Your task to perform on an android device: turn on the 24-hour format for clock Image 0: 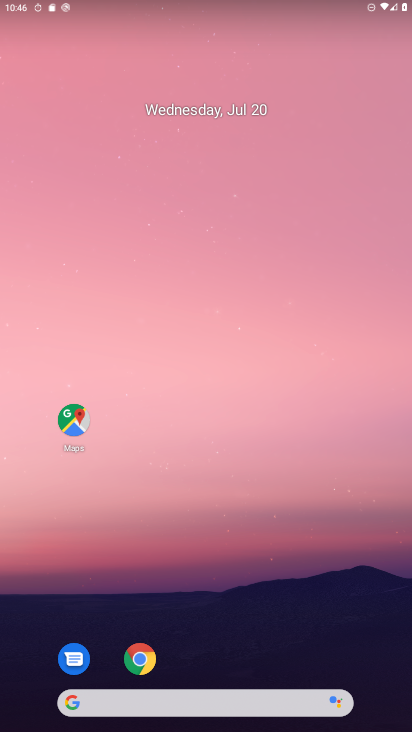
Step 0: drag from (288, 643) to (189, 46)
Your task to perform on an android device: turn on the 24-hour format for clock Image 1: 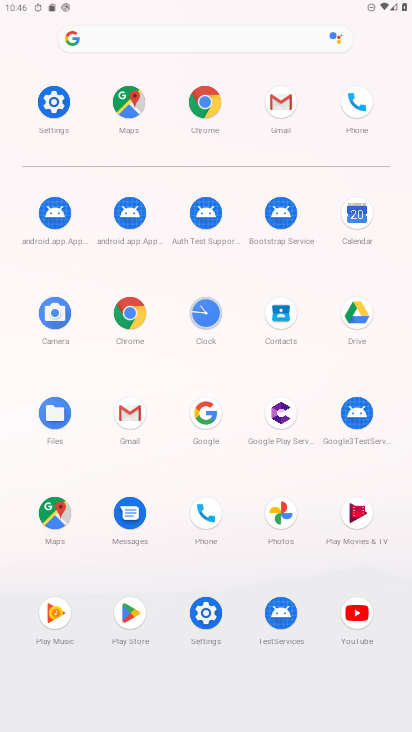
Step 1: click (209, 311)
Your task to perform on an android device: turn on the 24-hour format for clock Image 2: 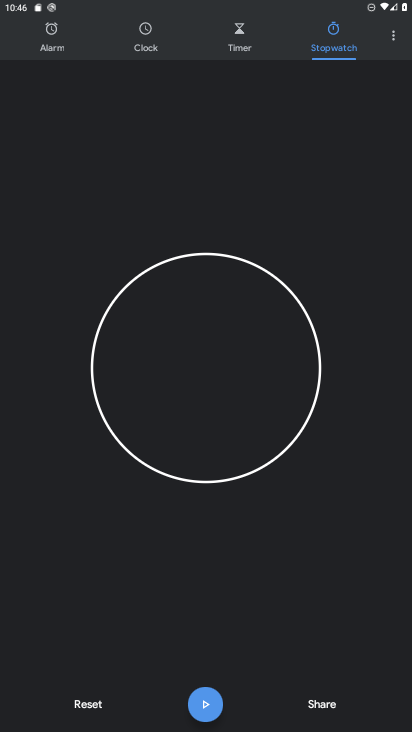
Step 2: click (398, 31)
Your task to perform on an android device: turn on the 24-hour format for clock Image 3: 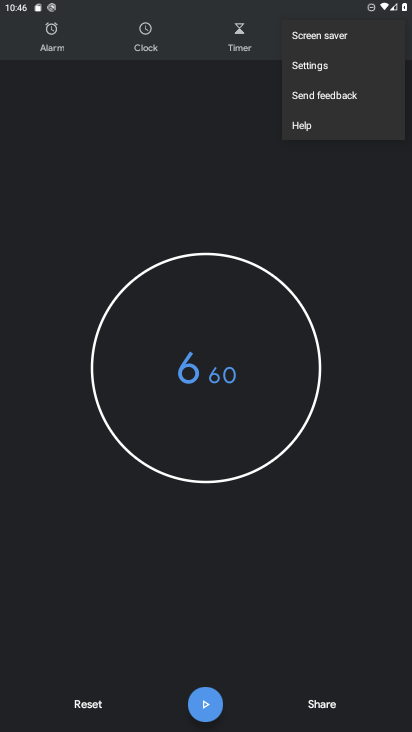
Step 3: click (315, 68)
Your task to perform on an android device: turn on the 24-hour format for clock Image 4: 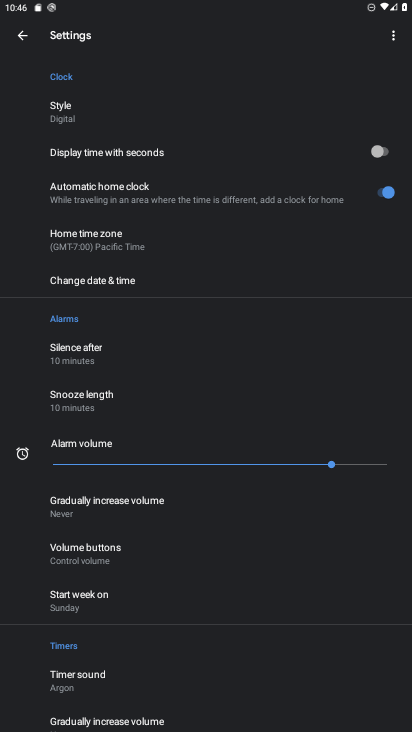
Step 4: click (127, 283)
Your task to perform on an android device: turn on the 24-hour format for clock Image 5: 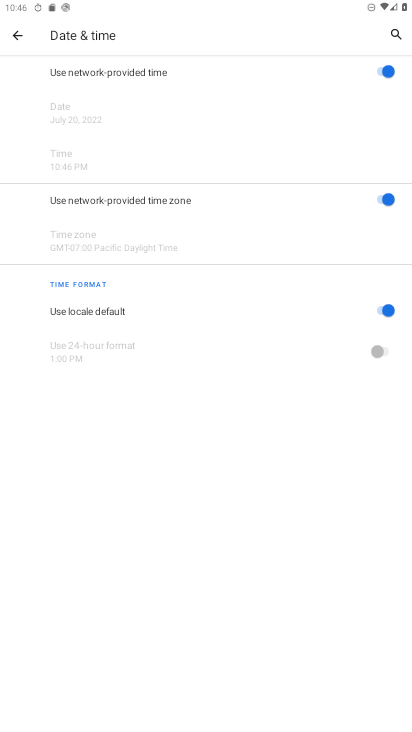
Step 5: click (379, 308)
Your task to perform on an android device: turn on the 24-hour format for clock Image 6: 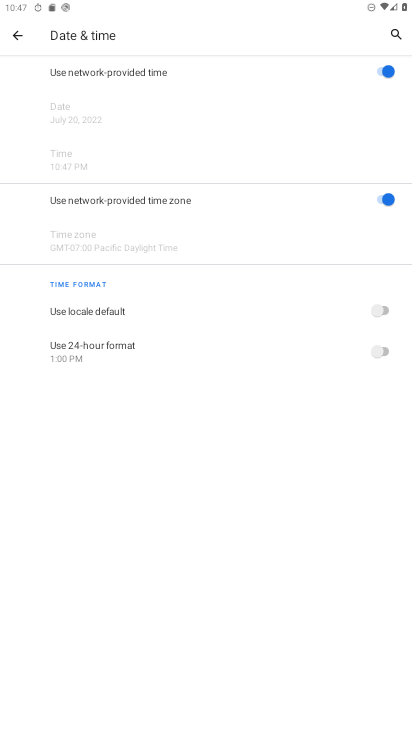
Step 6: click (375, 358)
Your task to perform on an android device: turn on the 24-hour format for clock Image 7: 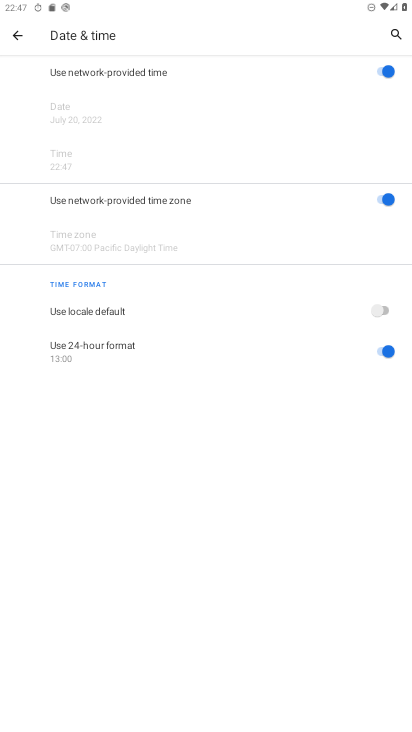
Step 7: task complete